Your task to perform on an android device: change the upload size in google photos Image 0: 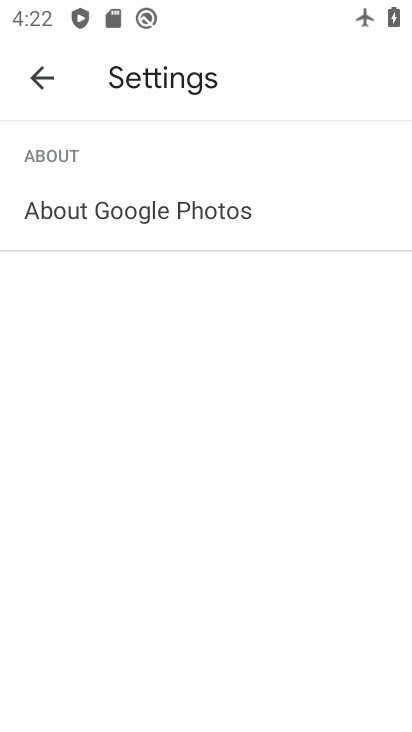
Step 0: press back button
Your task to perform on an android device: change the upload size in google photos Image 1: 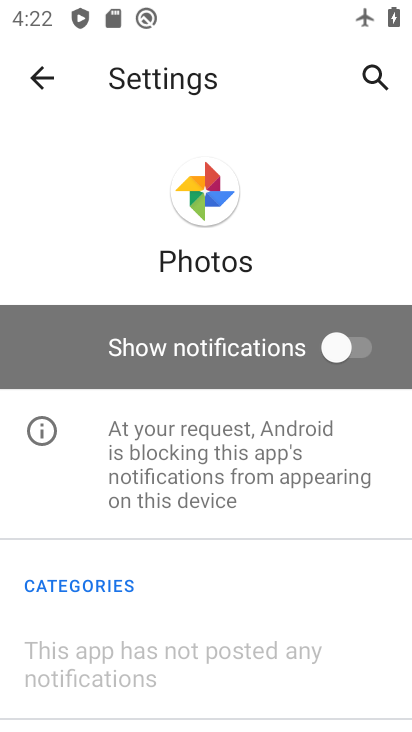
Step 1: press back button
Your task to perform on an android device: change the upload size in google photos Image 2: 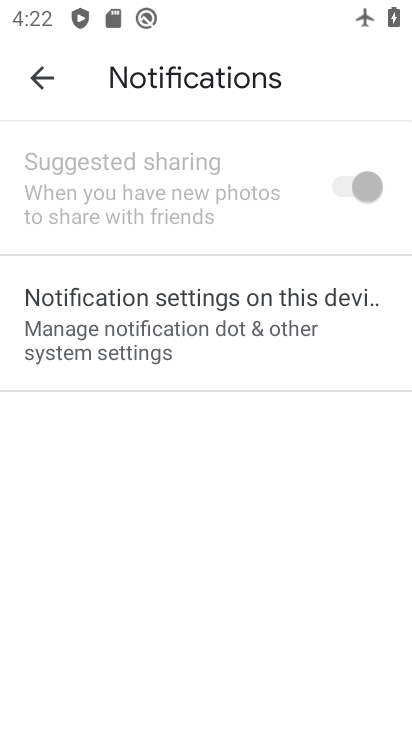
Step 2: click (30, 70)
Your task to perform on an android device: change the upload size in google photos Image 3: 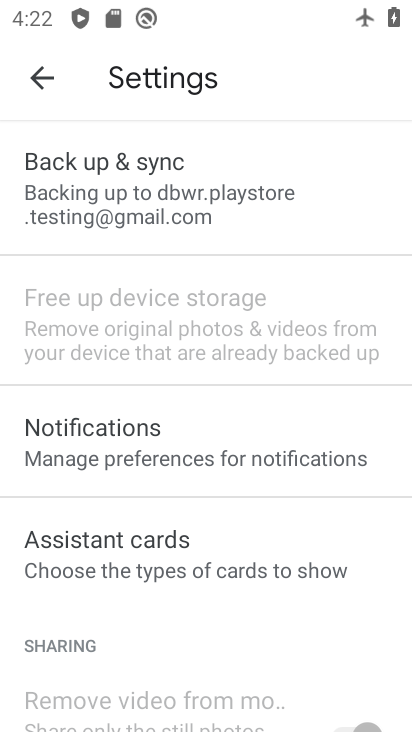
Step 3: drag from (240, 481) to (275, 100)
Your task to perform on an android device: change the upload size in google photos Image 4: 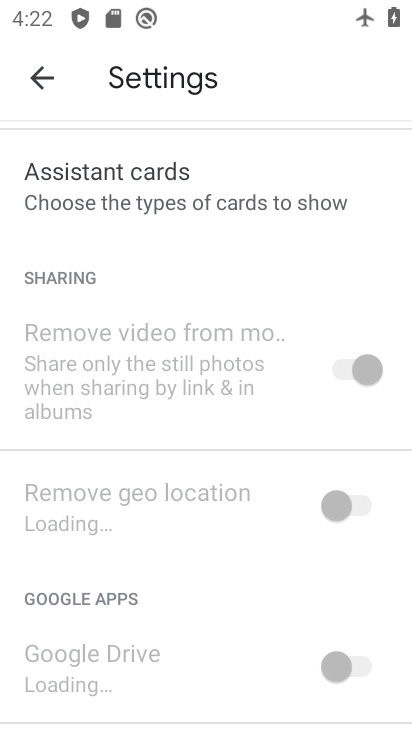
Step 4: drag from (300, 290) to (300, 658)
Your task to perform on an android device: change the upload size in google photos Image 5: 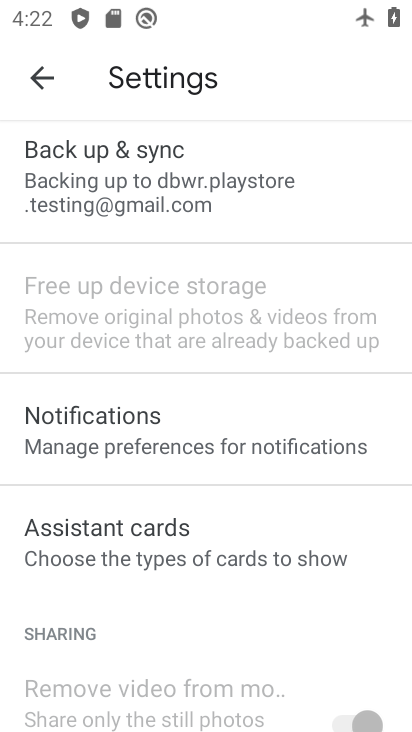
Step 5: click (262, 202)
Your task to perform on an android device: change the upload size in google photos Image 6: 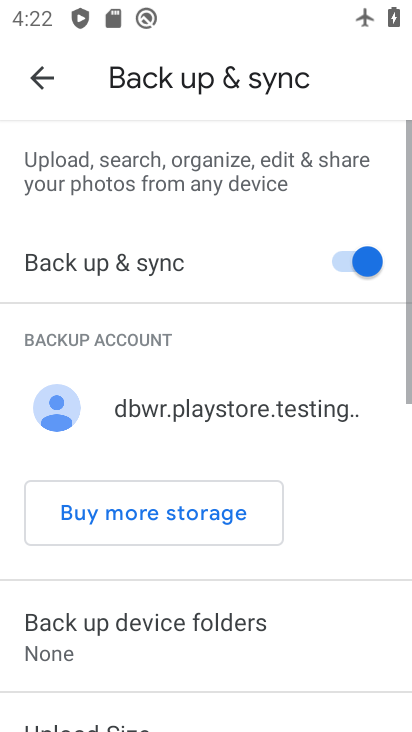
Step 6: drag from (286, 615) to (244, 229)
Your task to perform on an android device: change the upload size in google photos Image 7: 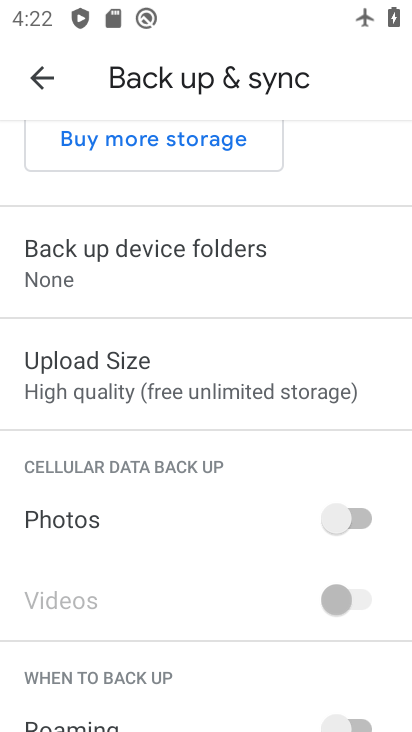
Step 7: click (182, 384)
Your task to perform on an android device: change the upload size in google photos Image 8: 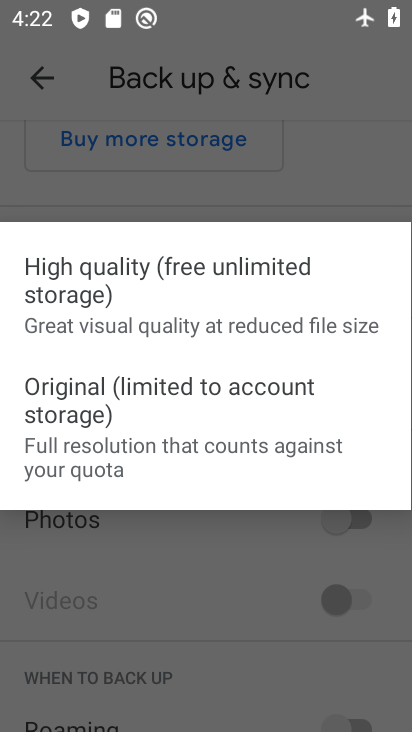
Step 8: click (140, 384)
Your task to perform on an android device: change the upload size in google photos Image 9: 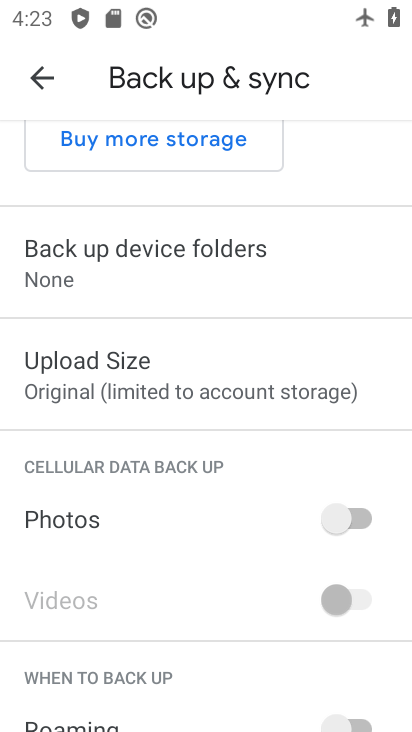
Step 9: task complete